Your task to perform on an android device: Search for vegetarian restaurants on Maps Image 0: 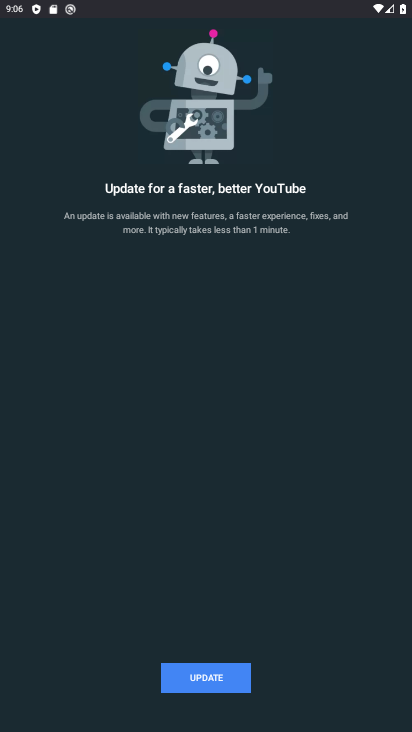
Step 0: press home button
Your task to perform on an android device: Search for vegetarian restaurants on Maps Image 1: 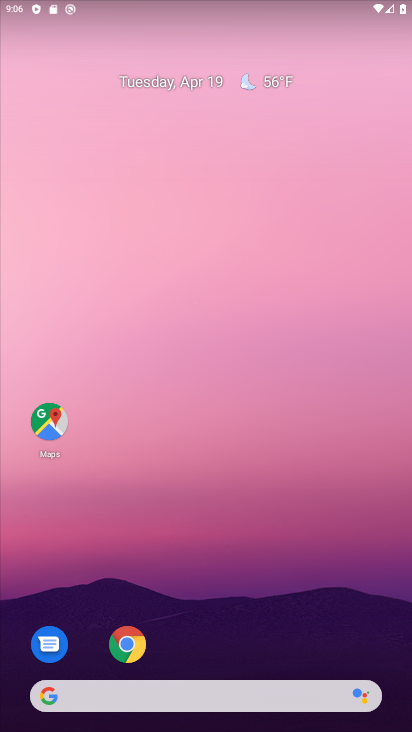
Step 1: click (47, 422)
Your task to perform on an android device: Search for vegetarian restaurants on Maps Image 2: 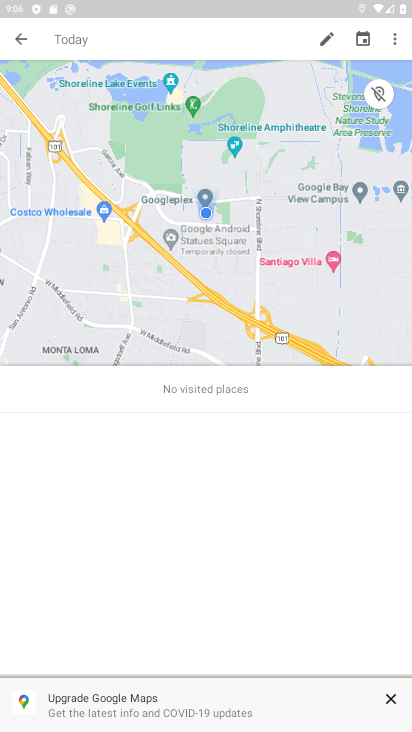
Step 2: click (20, 33)
Your task to perform on an android device: Search for vegetarian restaurants on Maps Image 3: 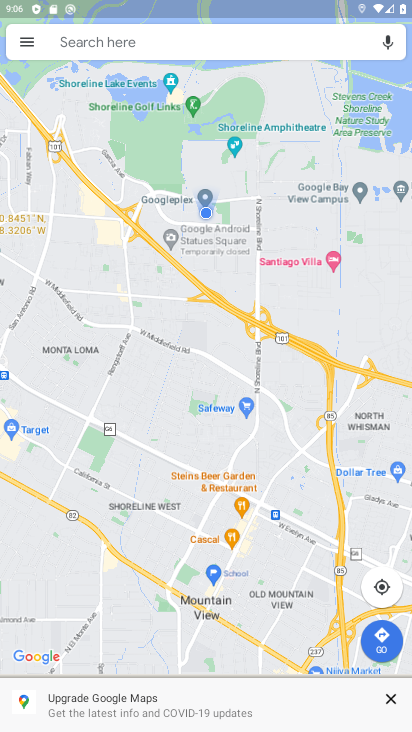
Step 3: click (201, 40)
Your task to perform on an android device: Search for vegetarian restaurants on Maps Image 4: 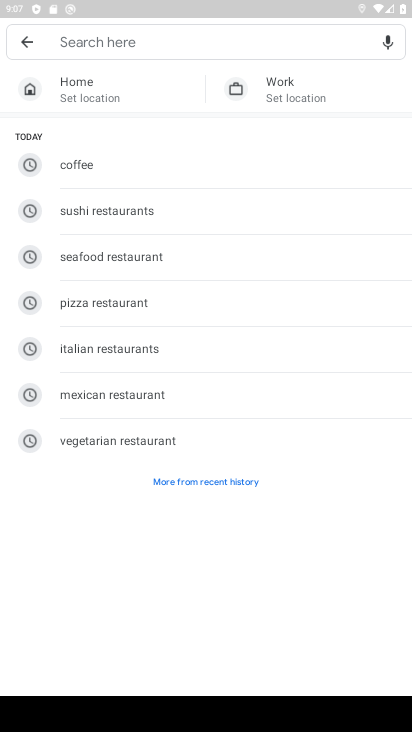
Step 4: type "vegetarian restaurants"
Your task to perform on an android device: Search for vegetarian restaurants on Maps Image 5: 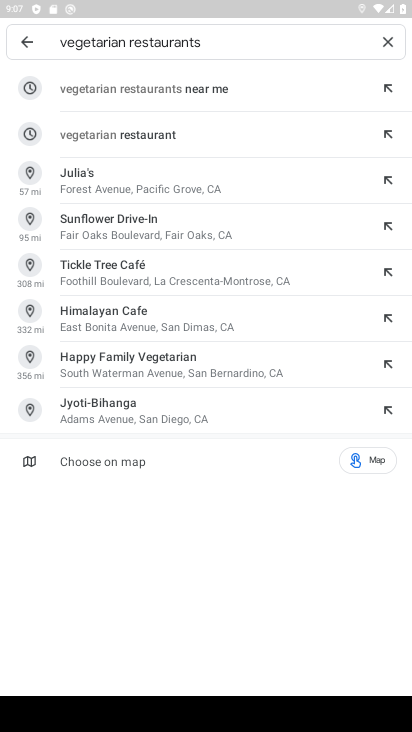
Step 5: click (137, 132)
Your task to perform on an android device: Search for vegetarian restaurants on Maps Image 6: 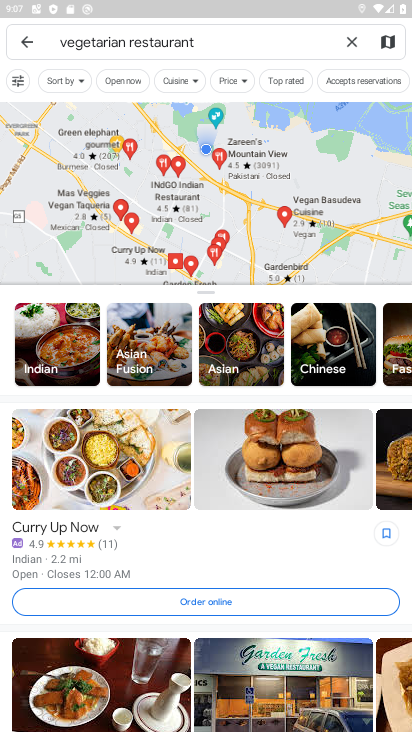
Step 6: task complete